Your task to perform on an android device: set an alarm Image 0: 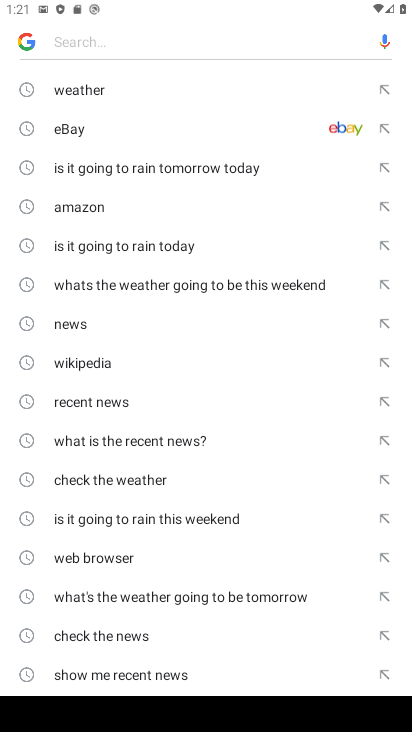
Step 0: press home button
Your task to perform on an android device: set an alarm Image 1: 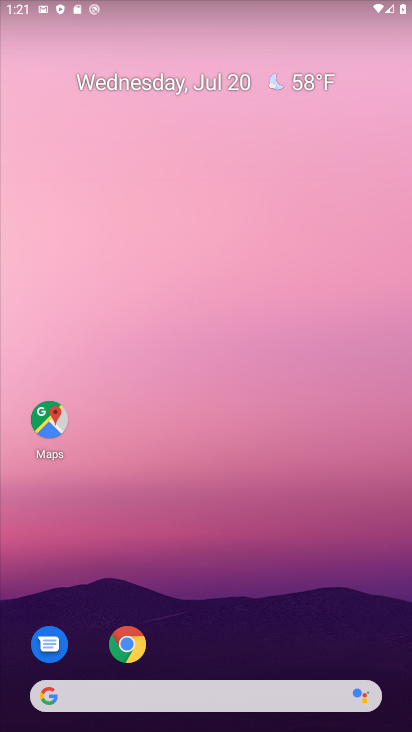
Step 1: drag from (183, 646) to (141, 90)
Your task to perform on an android device: set an alarm Image 2: 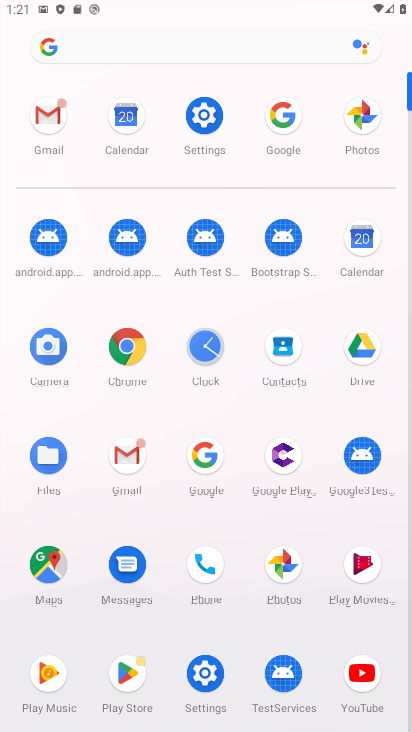
Step 2: click (206, 344)
Your task to perform on an android device: set an alarm Image 3: 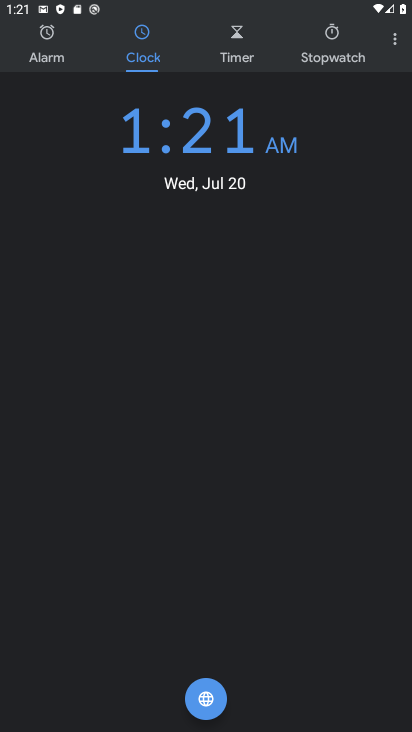
Step 3: click (63, 50)
Your task to perform on an android device: set an alarm Image 4: 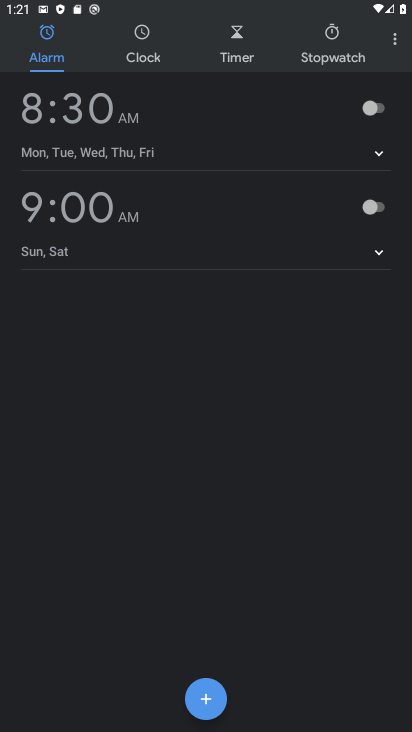
Step 4: click (377, 112)
Your task to perform on an android device: set an alarm Image 5: 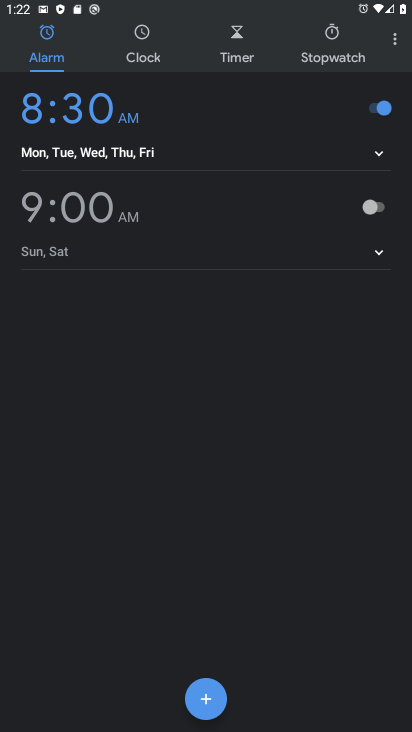
Step 5: task complete